Your task to perform on an android device: add a contact Image 0: 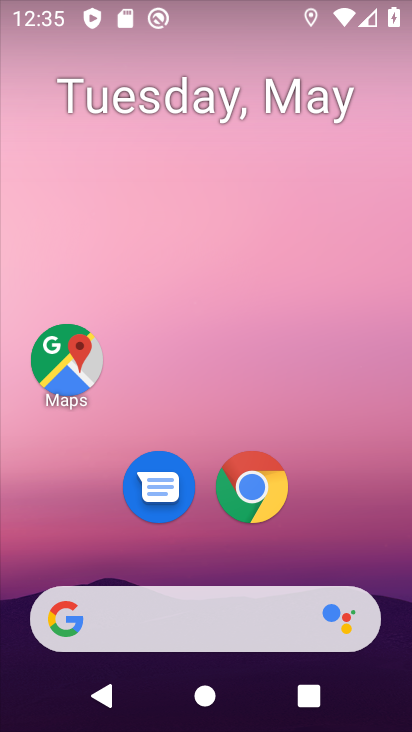
Step 0: drag from (281, 467) to (272, 112)
Your task to perform on an android device: add a contact Image 1: 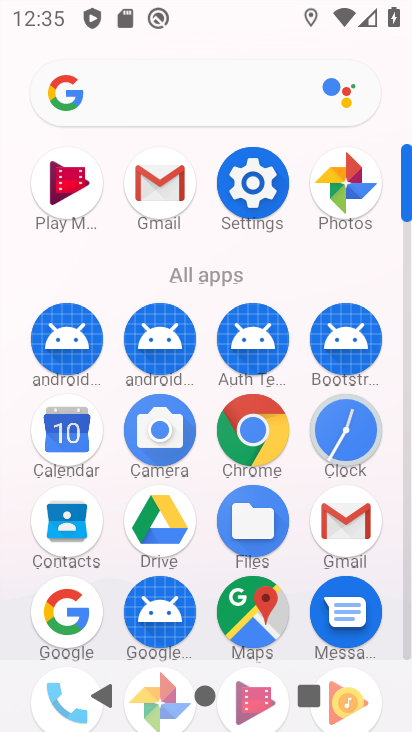
Step 1: click (67, 533)
Your task to perform on an android device: add a contact Image 2: 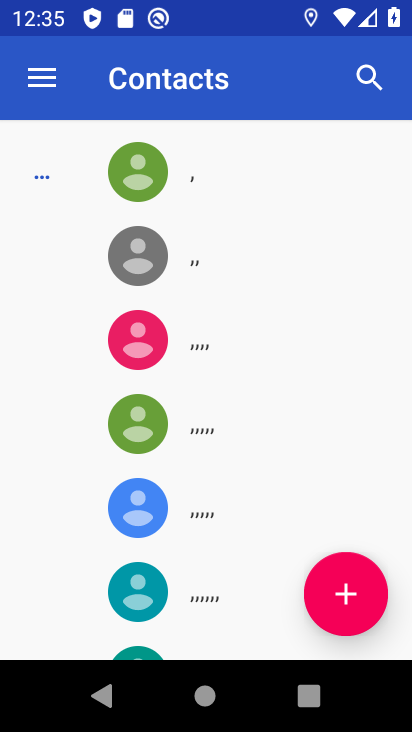
Step 2: click (343, 605)
Your task to perform on an android device: add a contact Image 3: 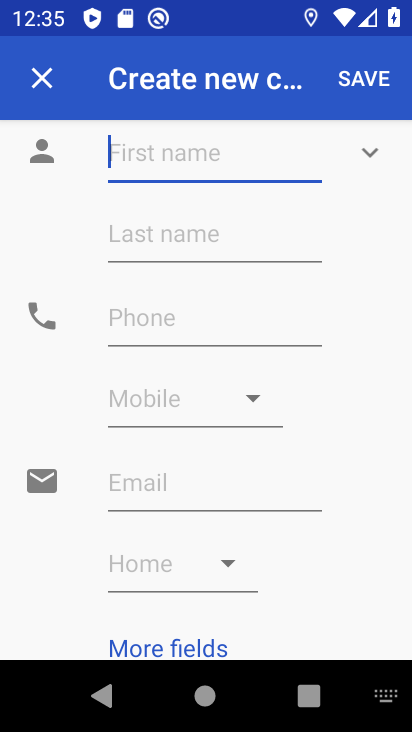
Step 3: click (149, 162)
Your task to perform on an android device: add a contact Image 4: 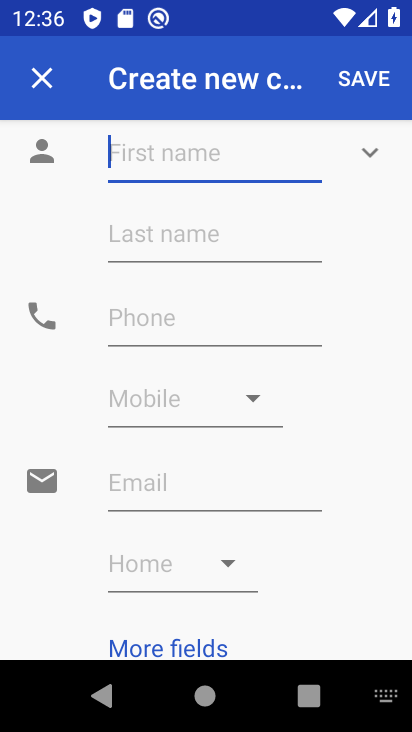
Step 4: type "hvfhf"
Your task to perform on an android device: add a contact Image 5: 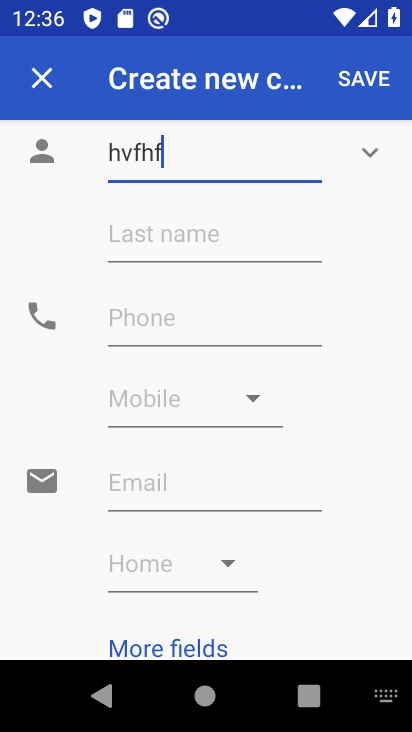
Step 5: click (151, 333)
Your task to perform on an android device: add a contact Image 6: 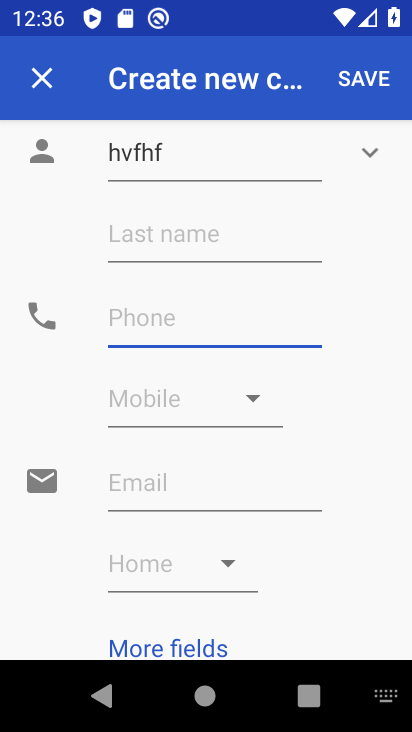
Step 6: type "343465567"
Your task to perform on an android device: add a contact Image 7: 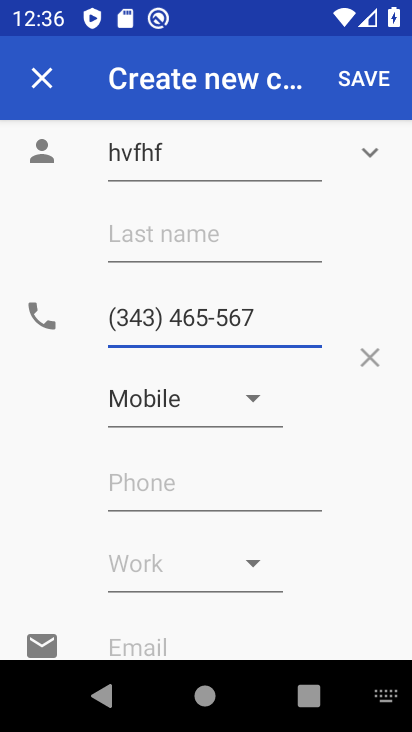
Step 7: click (370, 83)
Your task to perform on an android device: add a contact Image 8: 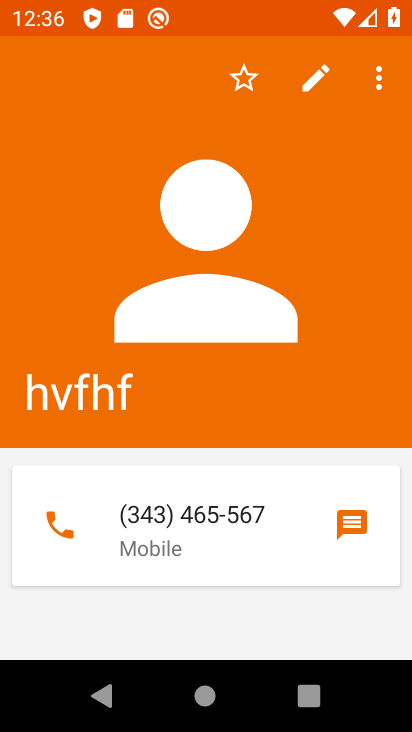
Step 8: task complete